Your task to perform on an android device: turn on bluetooth scan Image 0: 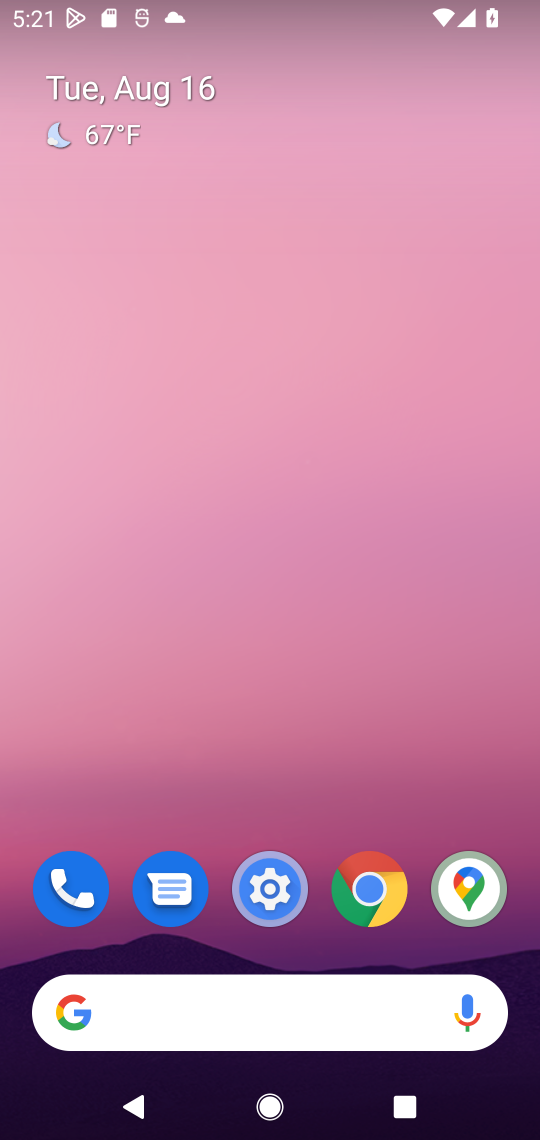
Step 0: drag from (191, 635) to (292, 138)
Your task to perform on an android device: turn on bluetooth scan Image 1: 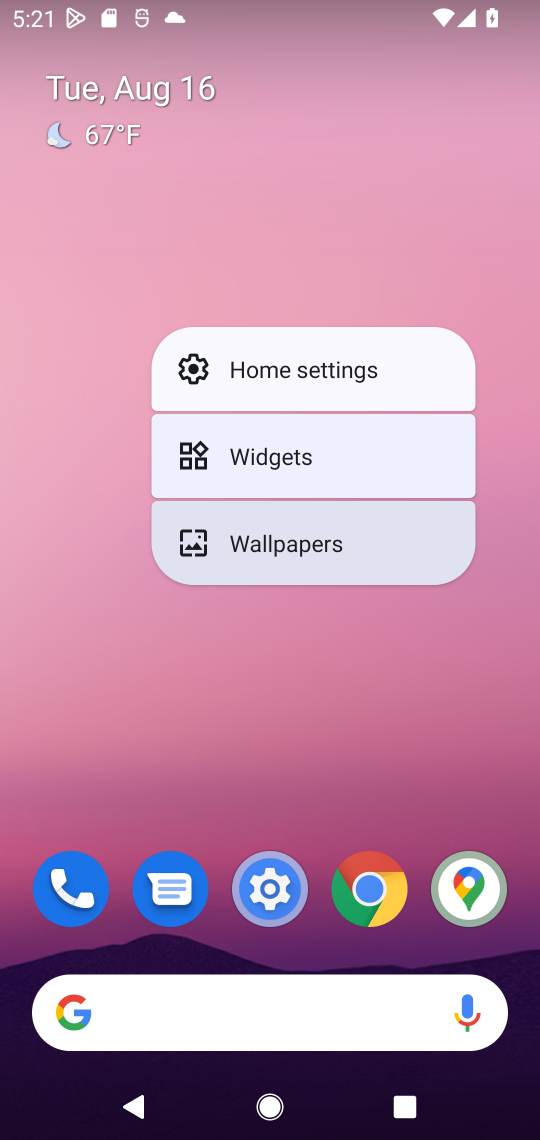
Step 1: click (292, 697)
Your task to perform on an android device: turn on bluetooth scan Image 2: 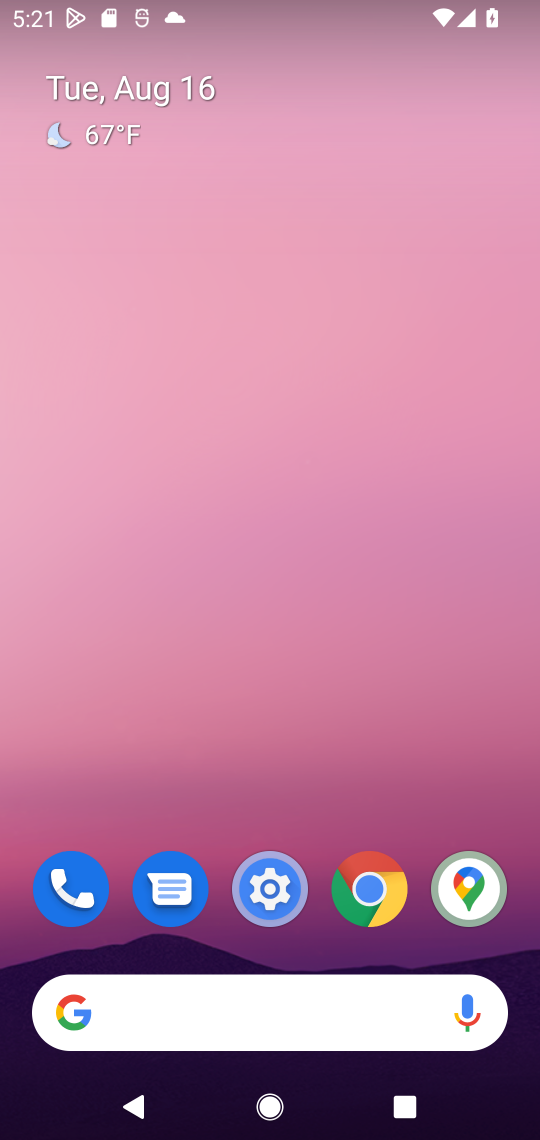
Step 2: click (272, 877)
Your task to perform on an android device: turn on bluetooth scan Image 3: 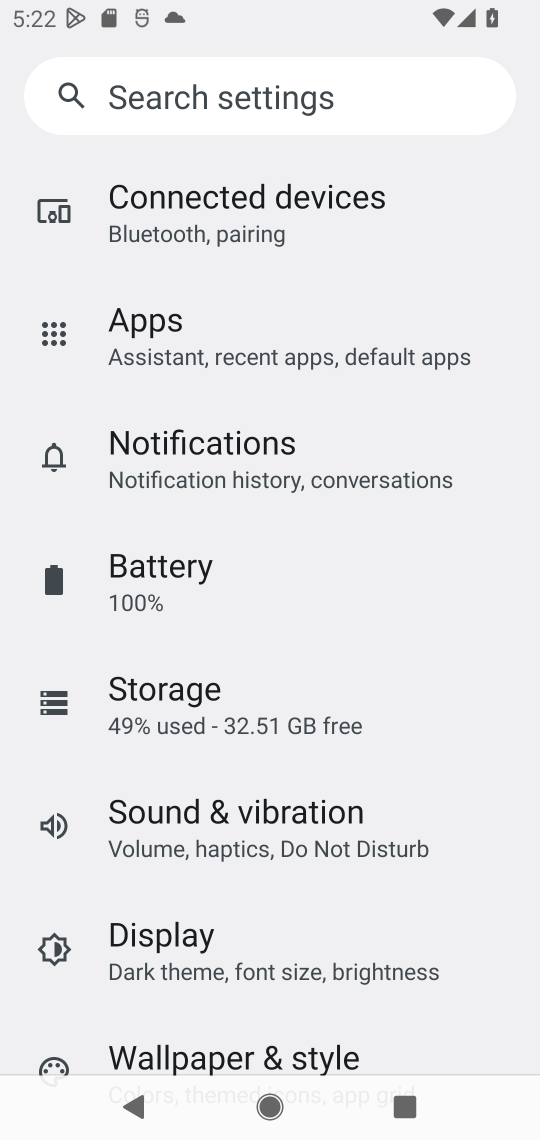
Step 3: task complete